Your task to perform on an android device: Open privacy settings Image 0: 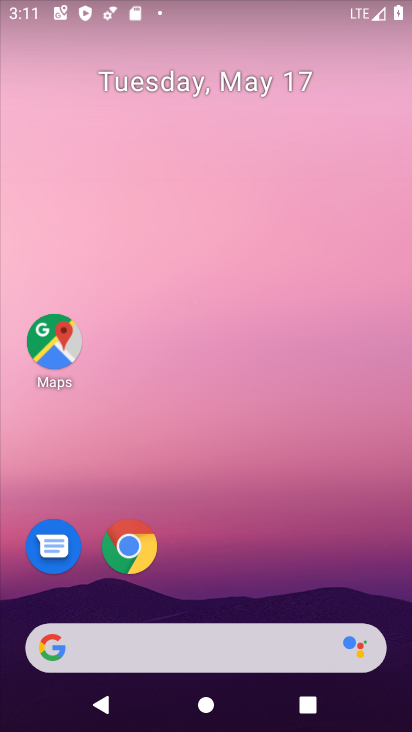
Step 0: drag from (237, 556) to (258, 25)
Your task to perform on an android device: Open privacy settings Image 1: 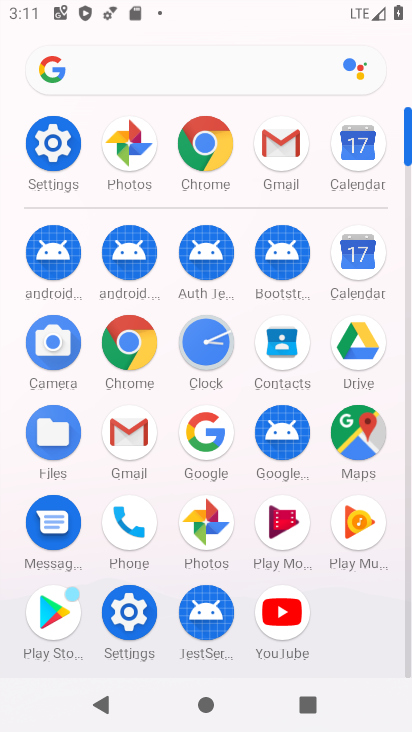
Step 1: click (93, 616)
Your task to perform on an android device: Open privacy settings Image 2: 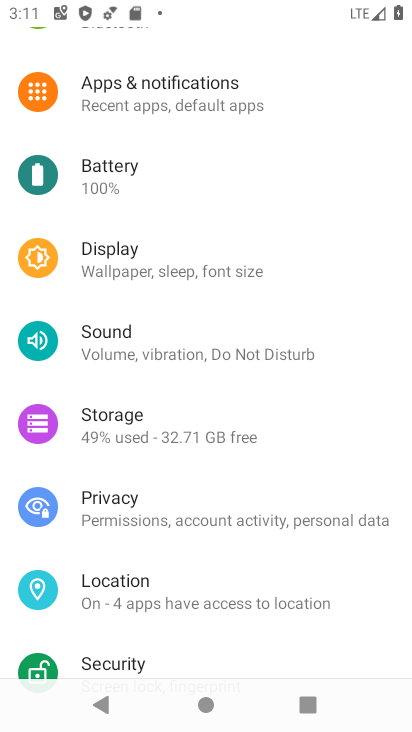
Step 2: click (131, 506)
Your task to perform on an android device: Open privacy settings Image 3: 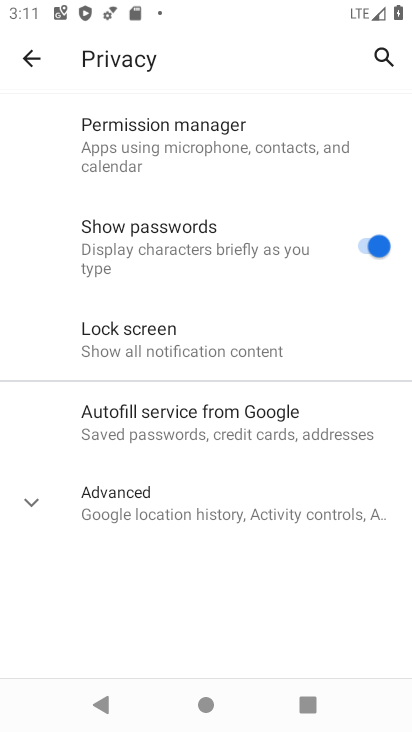
Step 3: task complete